Your task to perform on an android device: Clear all items from cart on costco. Image 0: 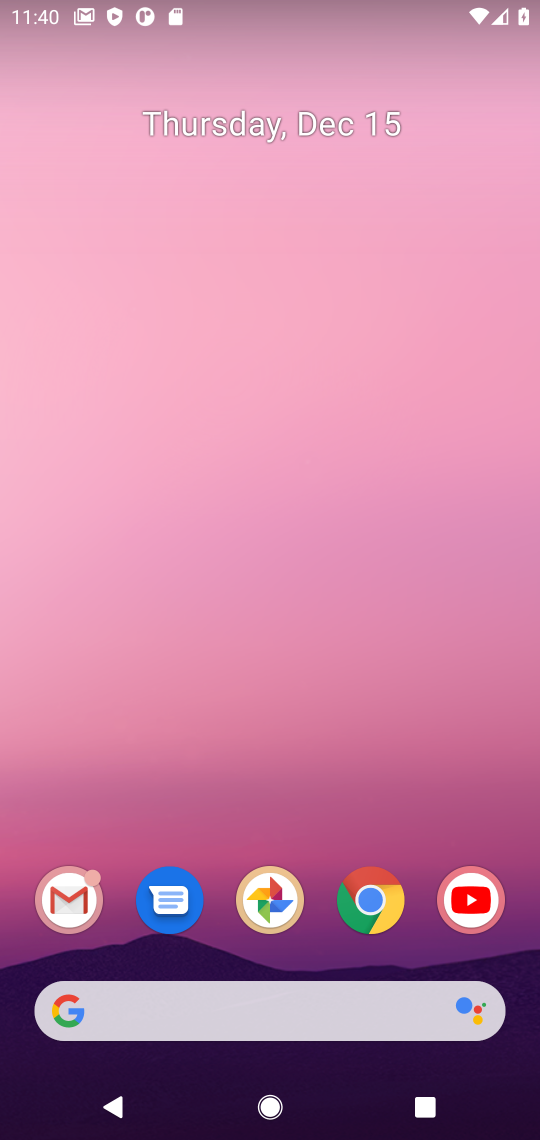
Step 0: click (375, 894)
Your task to perform on an android device: Clear all items from cart on costco. Image 1: 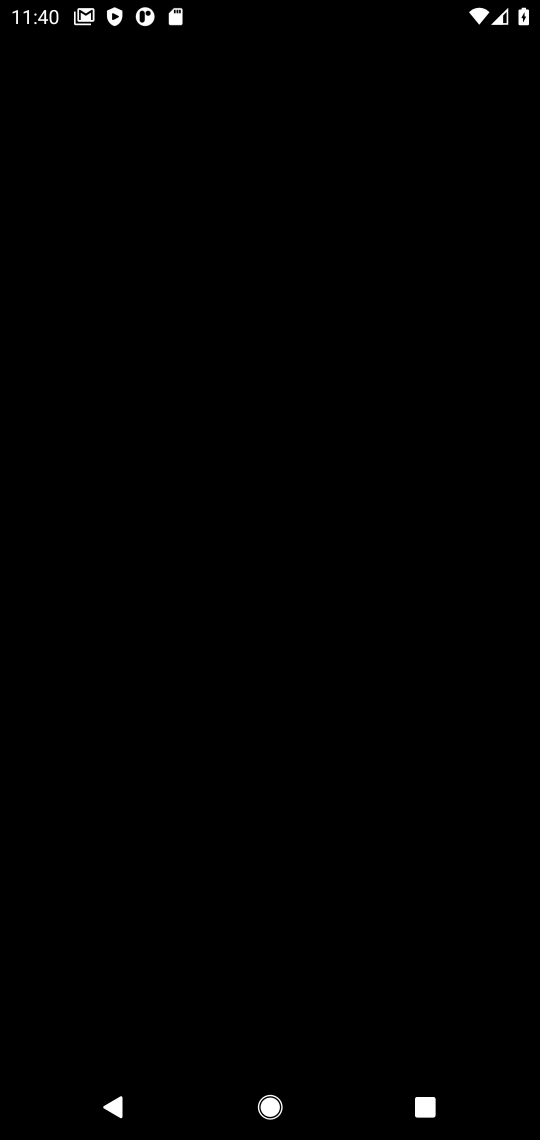
Step 1: press home button
Your task to perform on an android device: Clear all items from cart on costco. Image 2: 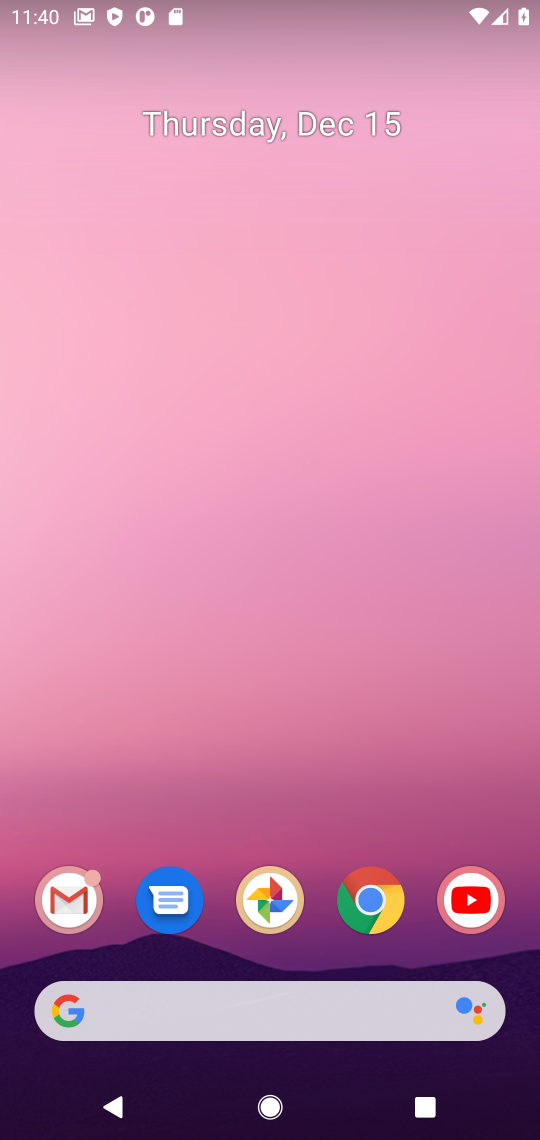
Step 2: click (378, 894)
Your task to perform on an android device: Clear all items from cart on costco. Image 3: 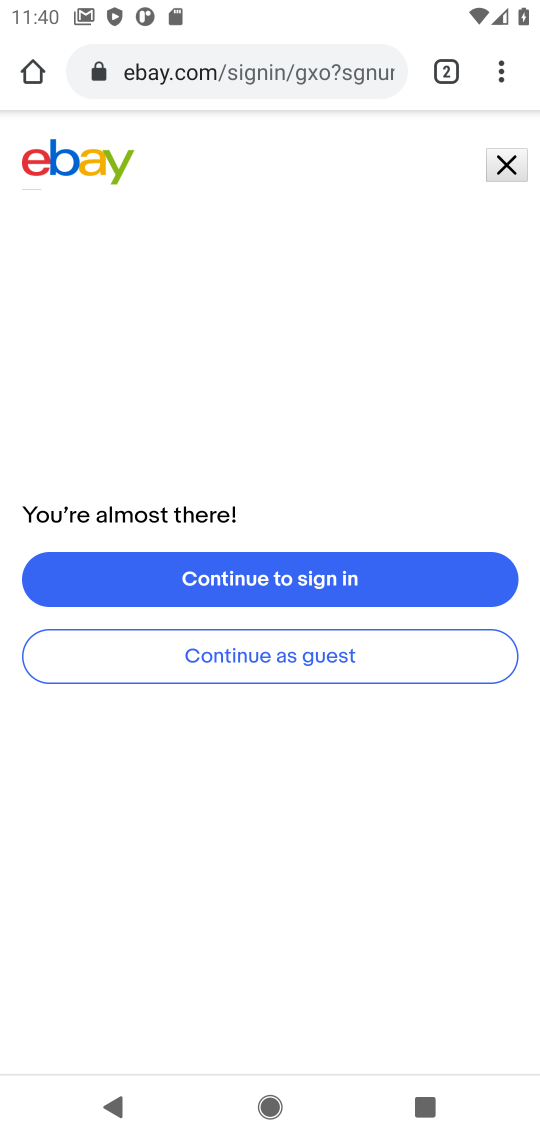
Step 3: click (351, 72)
Your task to perform on an android device: Clear all items from cart on costco. Image 4: 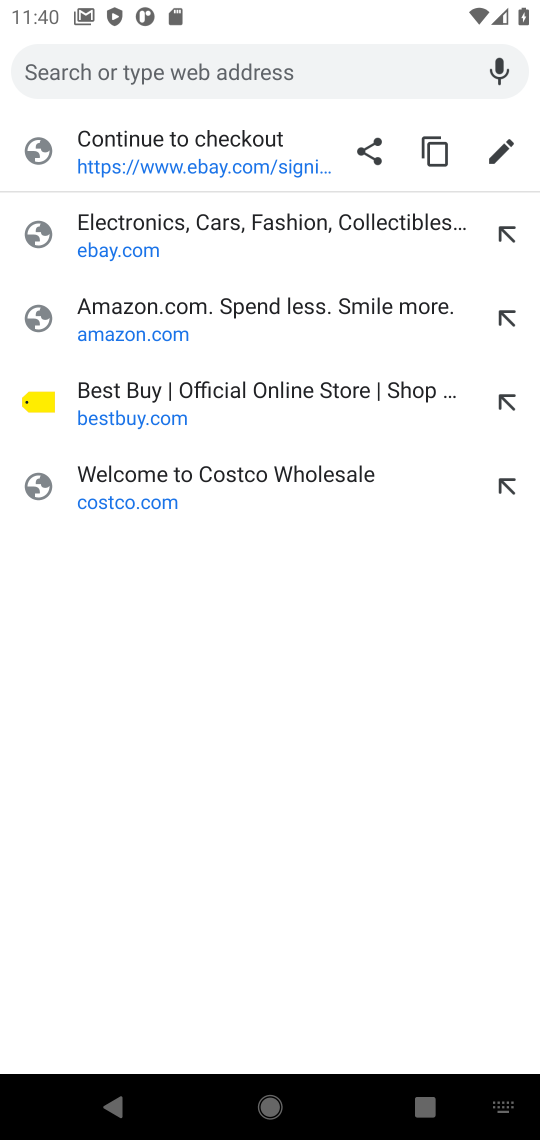
Step 4: click (298, 472)
Your task to perform on an android device: Clear all items from cart on costco. Image 5: 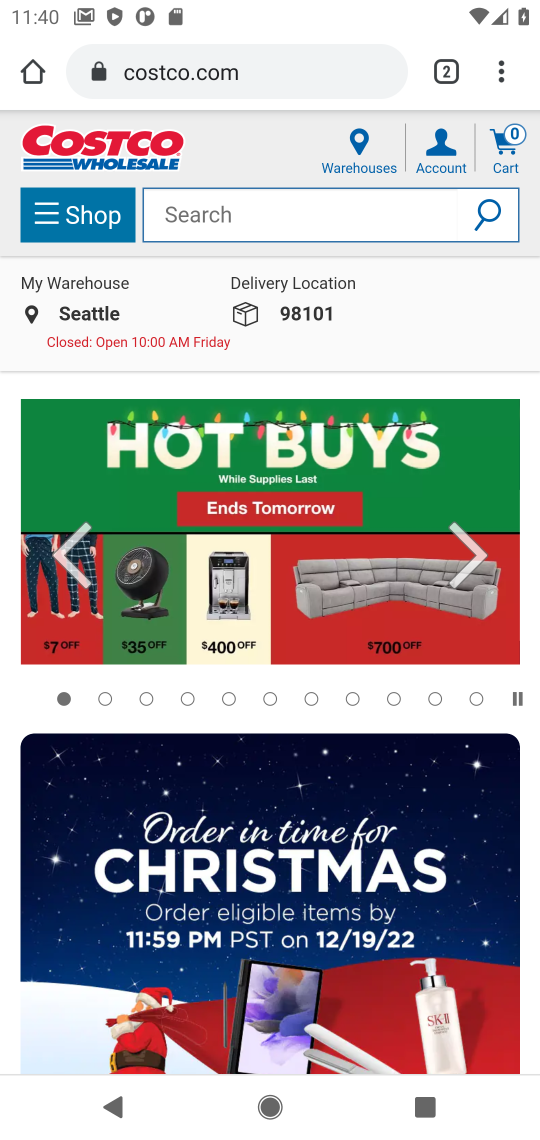
Step 5: click (504, 153)
Your task to perform on an android device: Clear all items from cart on costco. Image 6: 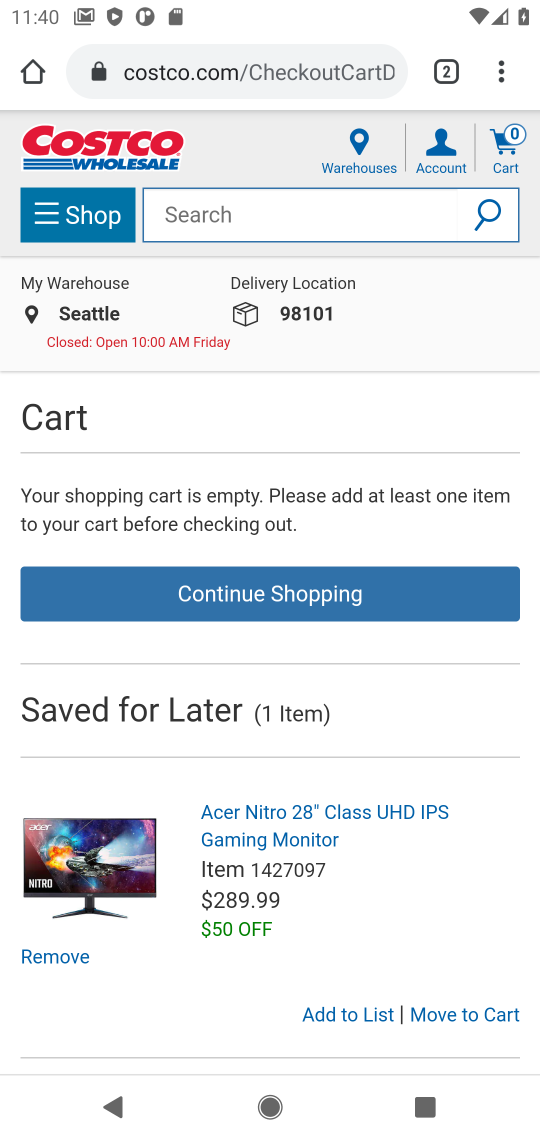
Step 6: task complete